Your task to perform on an android device: add a label to a message in the gmail app Image 0: 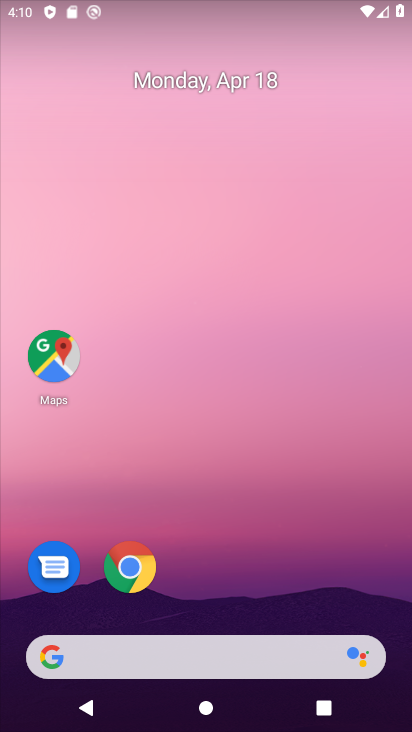
Step 0: drag from (250, 422) to (273, 77)
Your task to perform on an android device: add a label to a message in the gmail app Image 1: 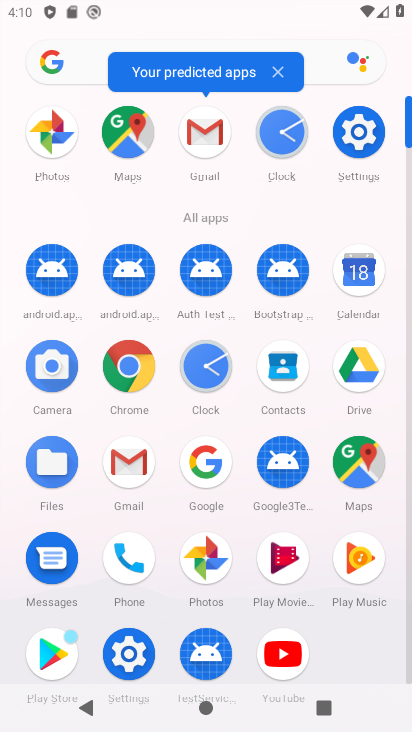
Step 1: click (197, 120)
Your task to perform on an android device: add a label to a message in the gmail app Image 2: 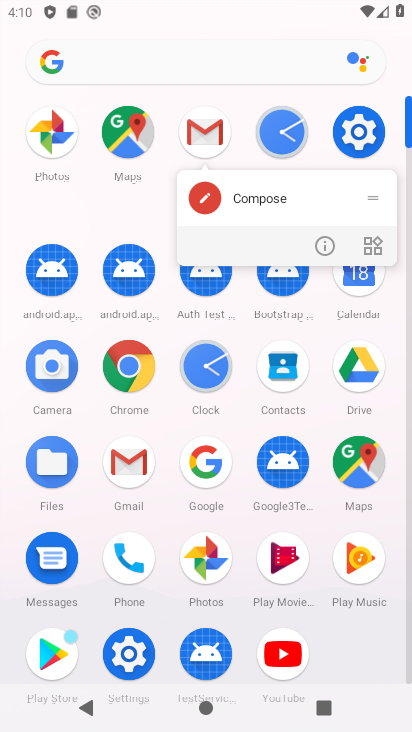
Step 2: click (197, 120)
Your task to perform on an android device: add a label to a message in the gmail app Image 3: 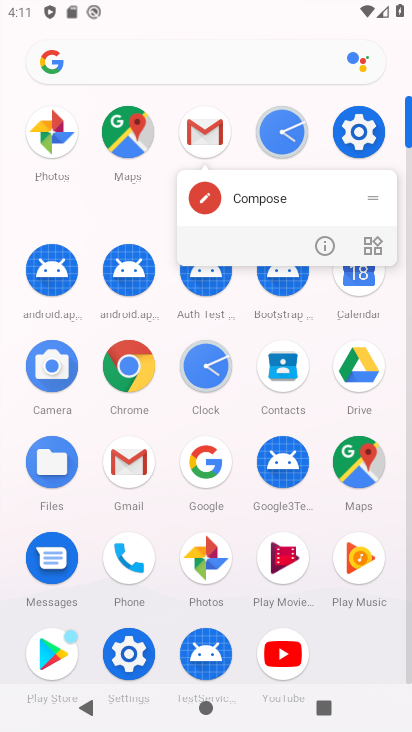
Step 3: click (197, 120)
Your task to perform on an android device: add a label to a message in the gmail app Image 4: 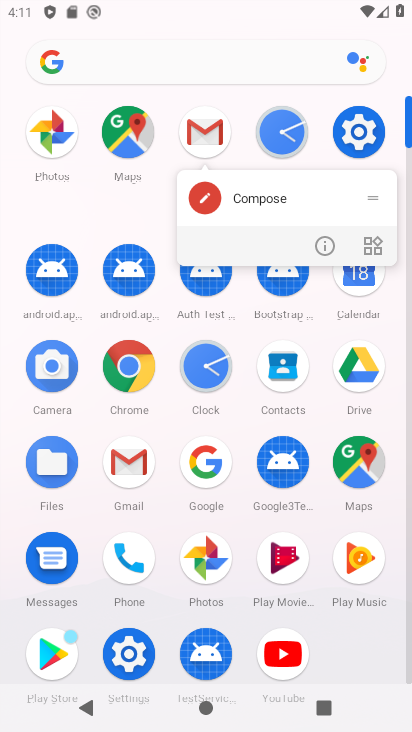
Step 4: click (197, 120)
Your task to perform on an android device: add a label to a message in the gmail app Image 5: 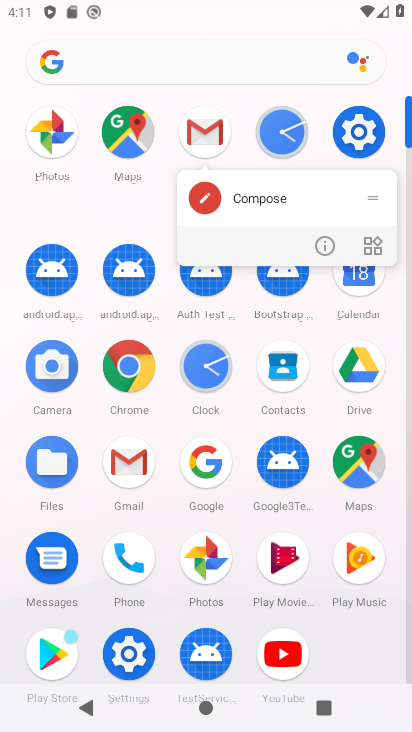
Step 5: click (197, 120)
Your task to perform on an android device: add a label to a message in the gmail app Image 6: 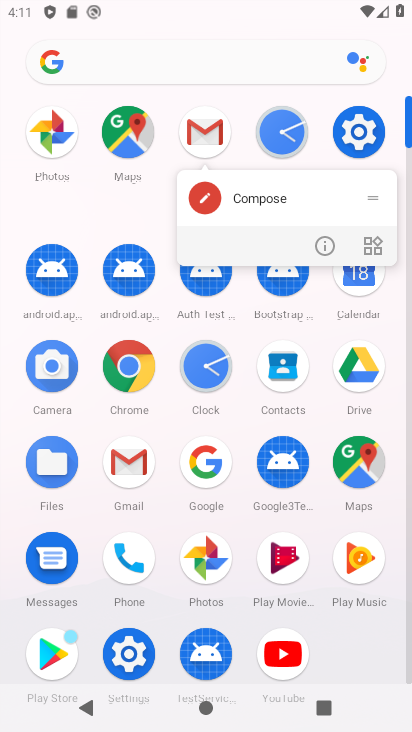
Step 6: click (197, 120)
Your task to perform on an android device: add a label to a message in the gmail app Image 7: 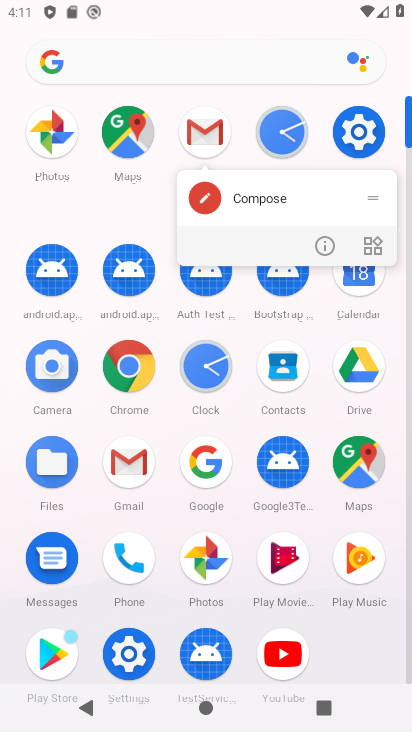
Step 7: click (197, 120)
Your task to perform on an android device: add a label to a message in the gmail app Image 8: 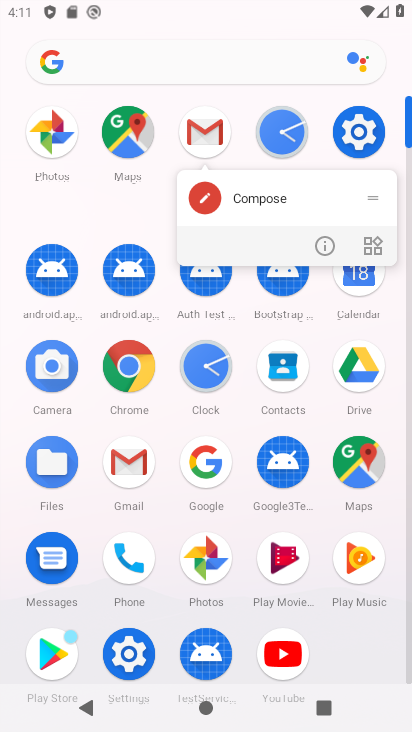
Step 8: click (197, 120)
Your task to perform on an android device: add a label to a message in the gmail app Image 9: 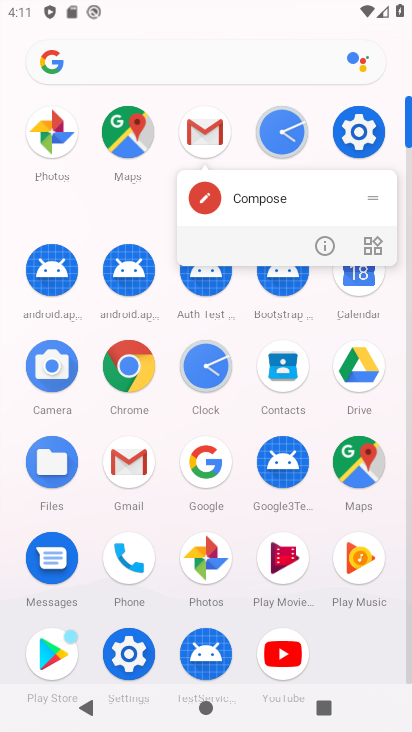
Step 9: click (197, 120)
Your task to perform on an android device: add a label to a message in the gmail app Image 10: 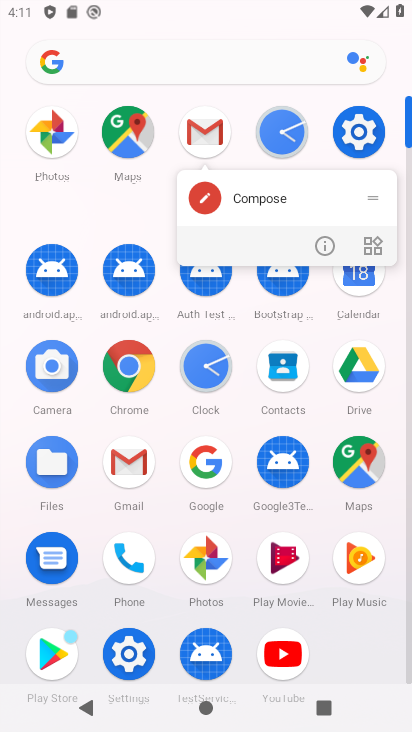
Step 10: click (197, 120)
Your task to perform on an android device: add a label to a message in the gmail app Image 11: 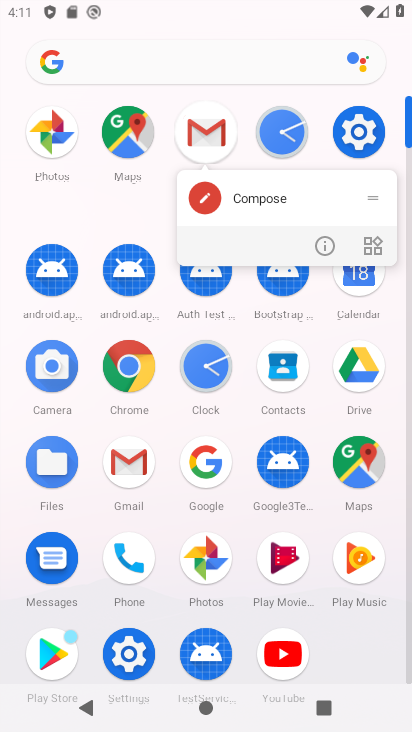
Step 11: click (197, 120)
Your task to perform on an android device: add a label to a message in the gmail app Image 12: 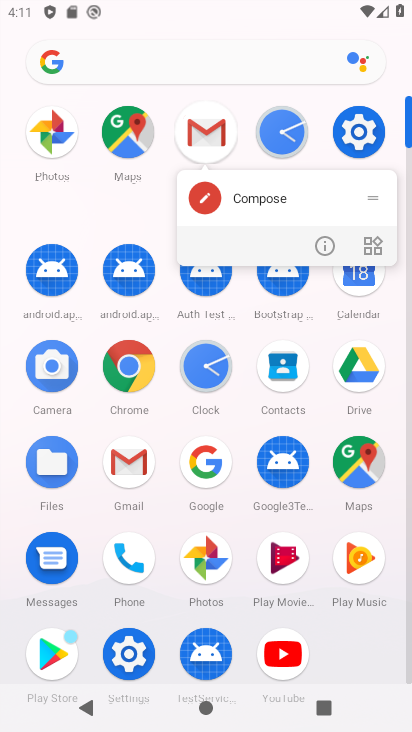
Step 12: click (197, 120)
Your task to perform on an android device: add a label to a message in the gmail app Image 13: 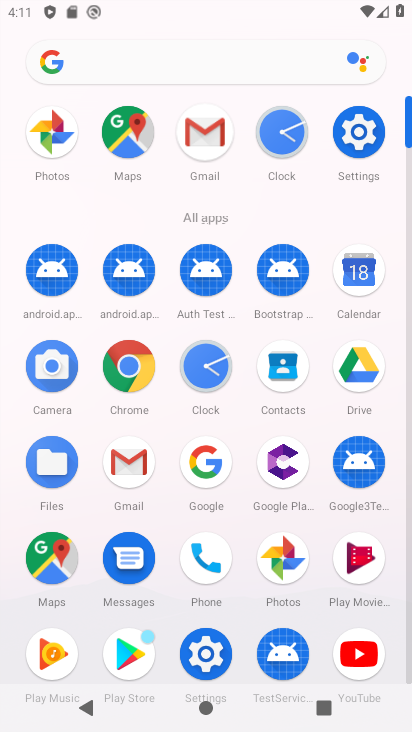
Step 13: click (197, 119)
Your task to perform on an android device: add a label to a message in the gmail app Image 14: 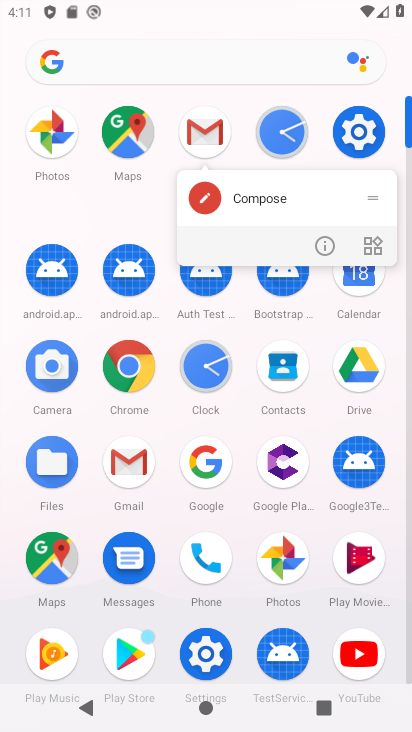
Step 14: click (197, 119)
Your task to perform on an android device: add a label to a message in the gmail app Image 15: 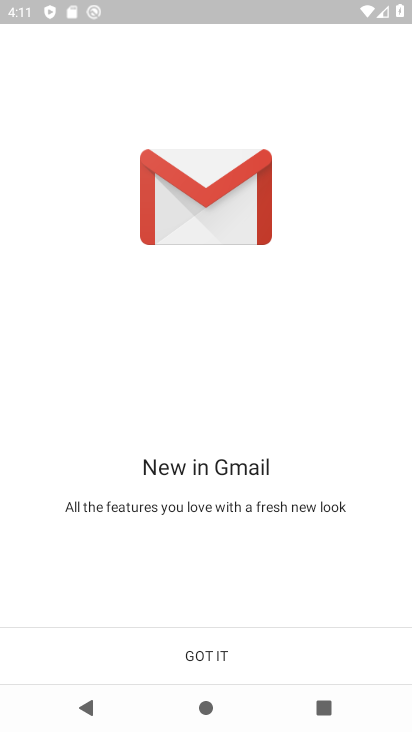
Step 15: click (195, 671)
Your task to perform on an android device: add a label to a message in the gmail app Image 16: 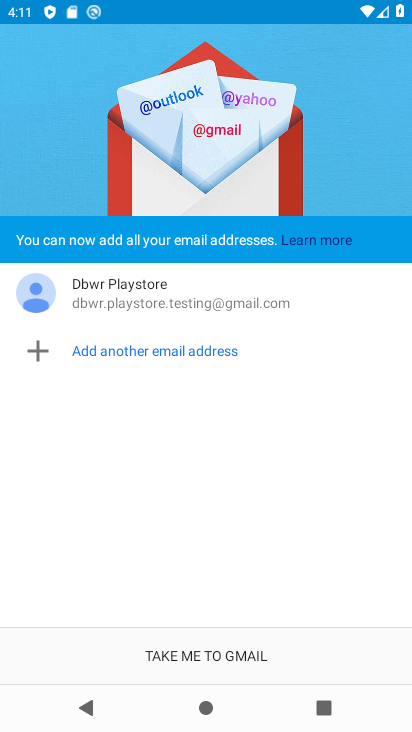
Step 16: click (230, 659)
Your task to perform on an android device: add a label to a message in the gmail app Image 17: 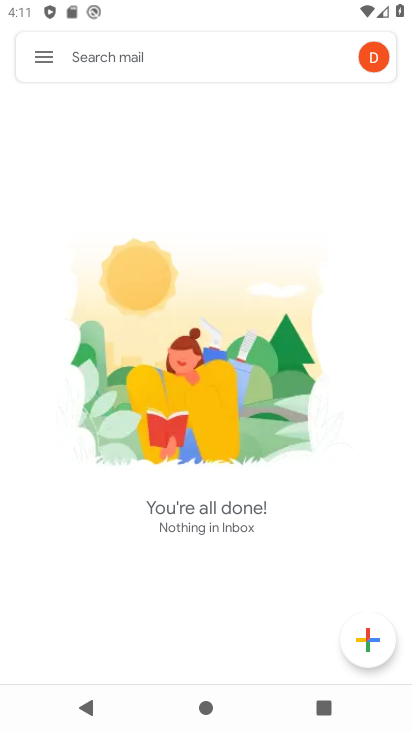
Step 17: task complete